Your task to perform on an android device: Search for Italian restaurants on Maps Image 0: 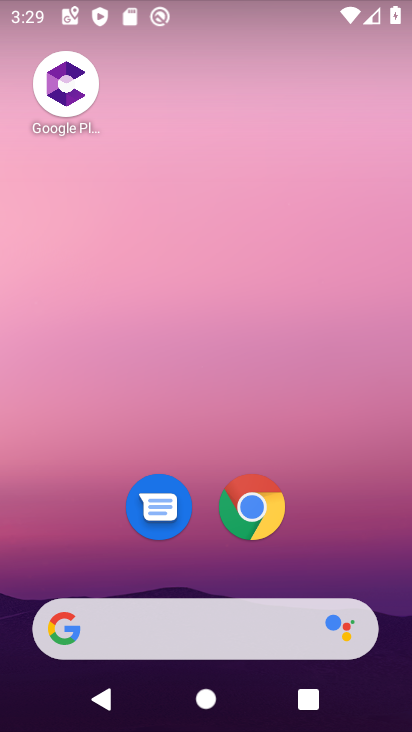
Step 0: drag from (342, 528) to (330, 10)
Your task to perform on an android device: Search for Italian restaurants on Maps Image 1: 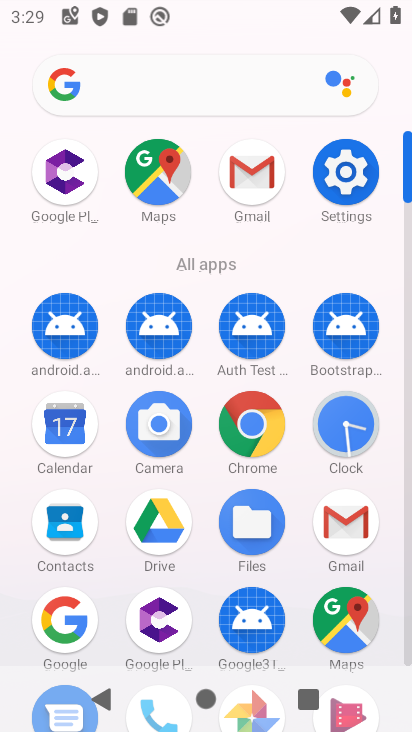
Step 1: click (338, 622)
Your task to perform on an android device: Search for Italian restaurants on Maps Image 2: 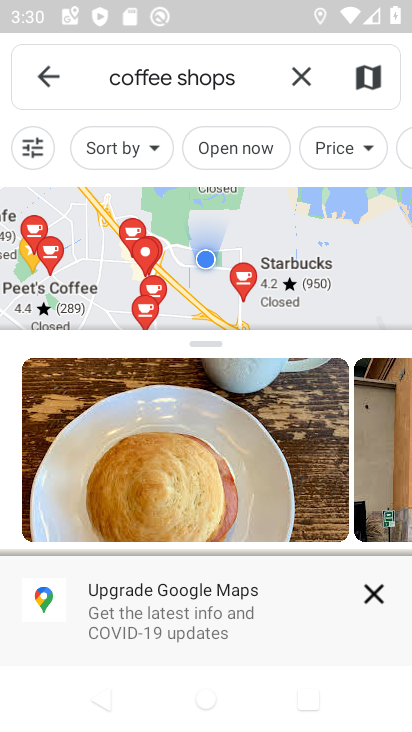
Step 2: click (195, 74)
Your task to perform on an android device: Search for Italian restaurants on Maps Image 3: 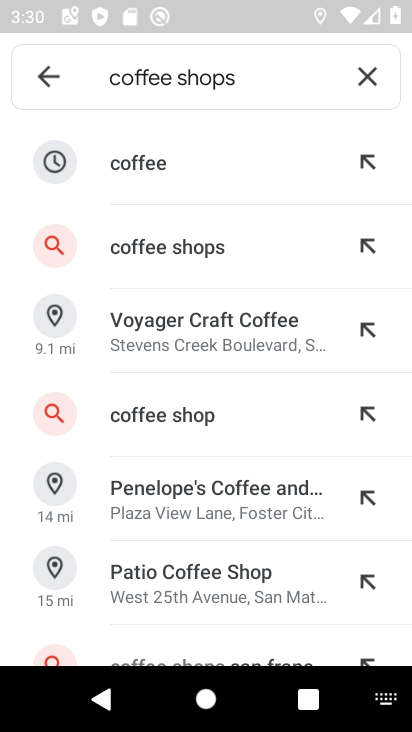
Step 3: click (369, 66)
Your task to perform on an android device: Search for Italian restaurants on Maps Image 4: 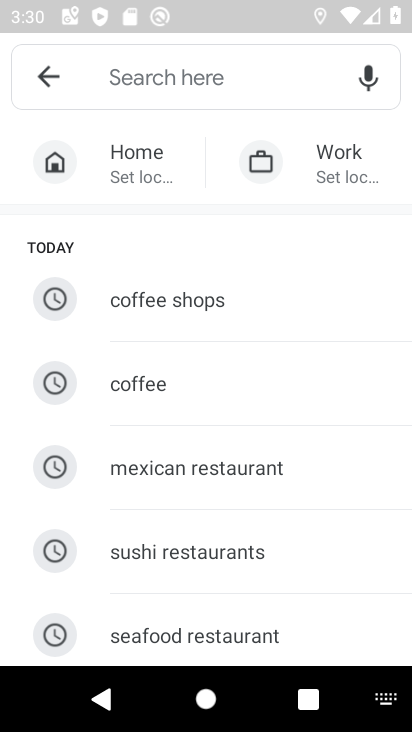
Step 4: type "Italian restaurants"
Your task to perform on an android device: Search for Italian restaurants on Maps Image 5: 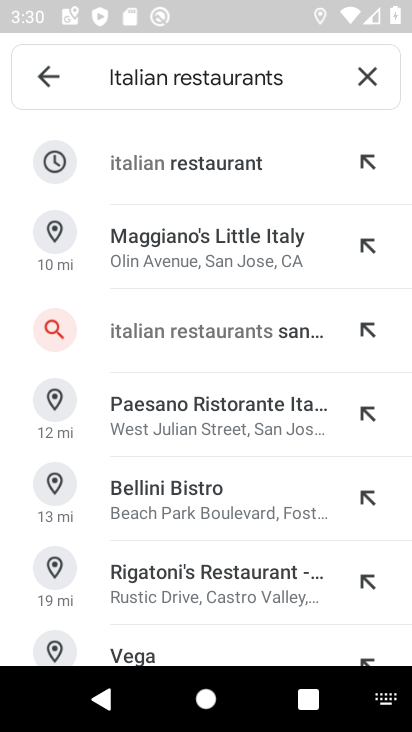
Step 5: press enter
Your task to perform on an android device: Search for Italian restaurants on Maps Image 6: 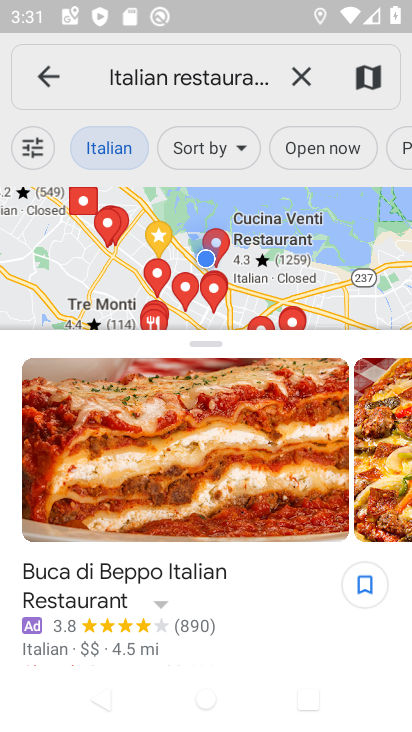
Step 6: task complete